Your task to perform on an android device: open chrome privacy settings Image 0: 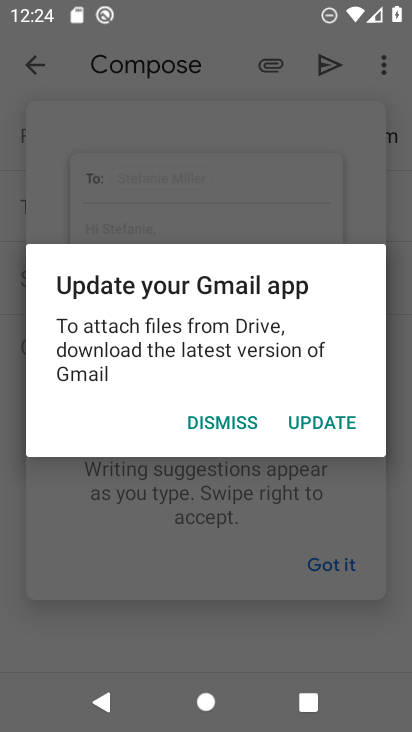
Step 0: press home button
Your task to perform on an android device: open chrome privacy settings Image 1: 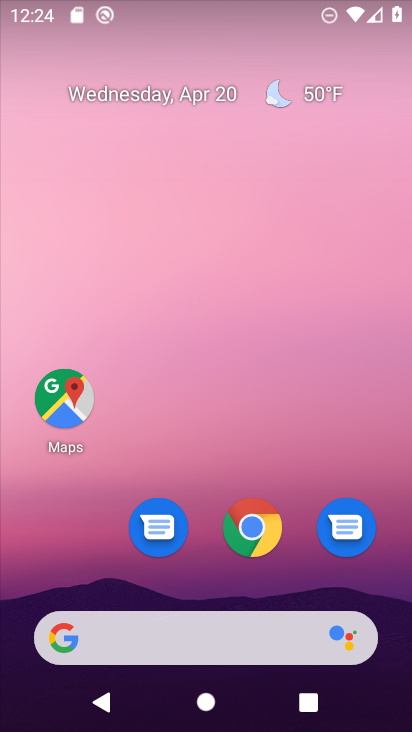
Step 1: click (253, 536)
Your task to perform on an android device: open chrome privacy settings Image 2: 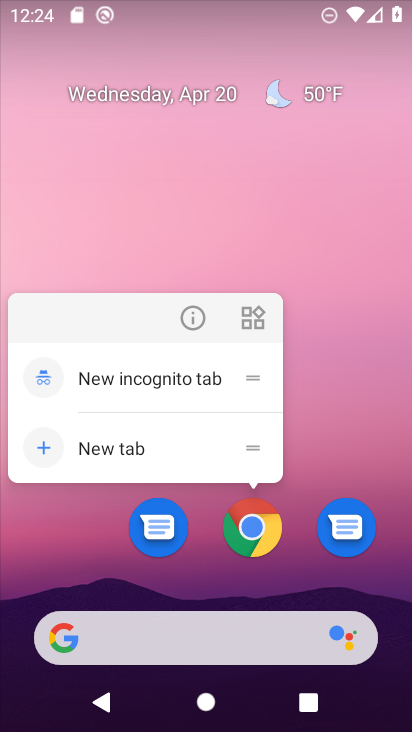
Step 2: click (254, 528)
Your task to perform on an android device: open chrome privacy settings Image 3: 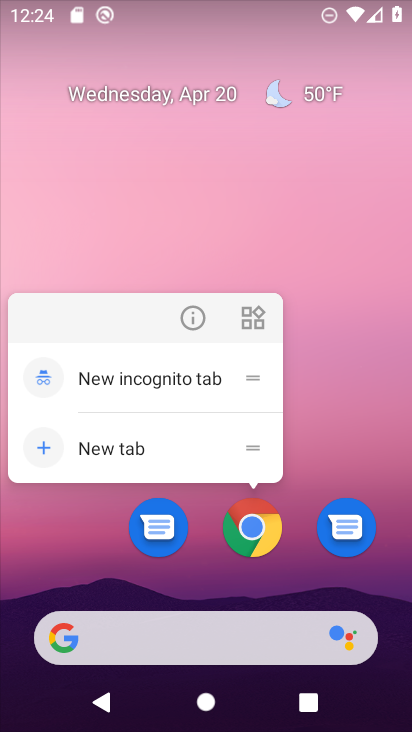
Step 3: click (254, 527)
Your task to perform on an android device: open chrome privacy settings Image 4: 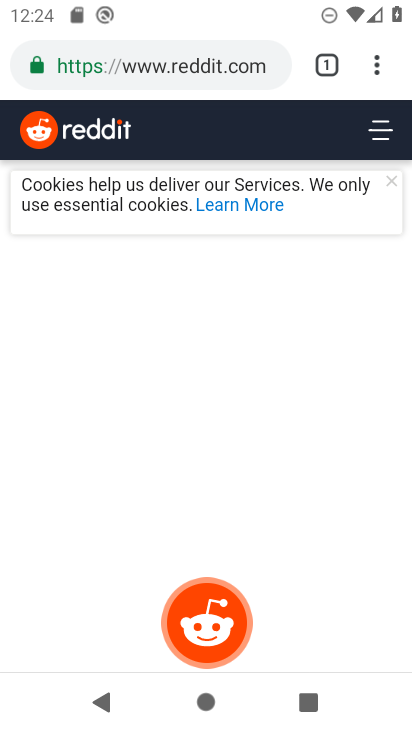
Step 4: click (378, 70)
Your task to perform on an android device: open chrome privacy settings Image 5: 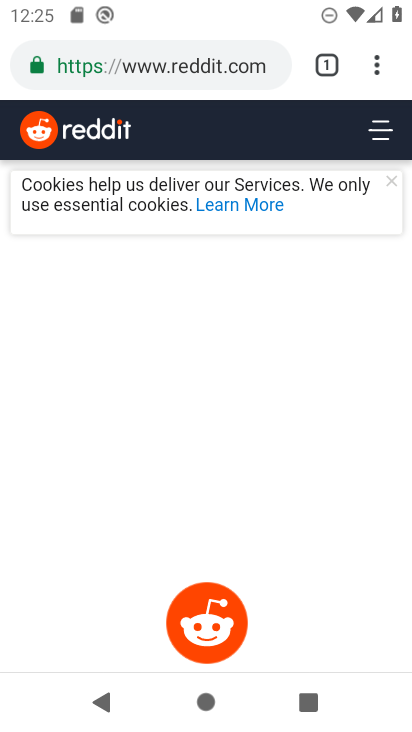
Step 5: click (379, 65)
Your task to perform on an android device: open chrome privacy settings Image 6: 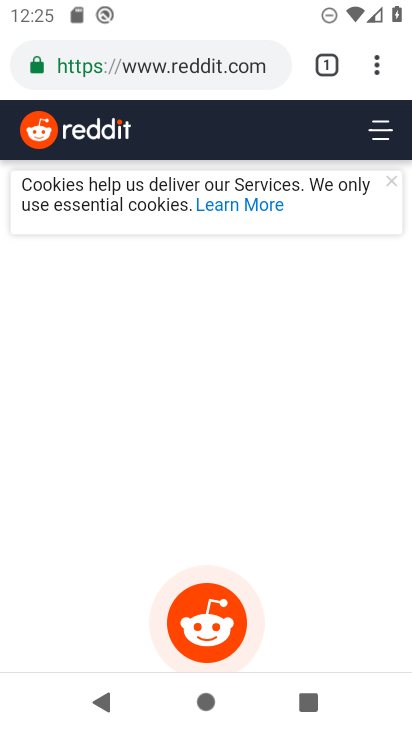
Step 6: click (377, 66)
Your task to perform on an android device: open chrome privacy settings Image 7: 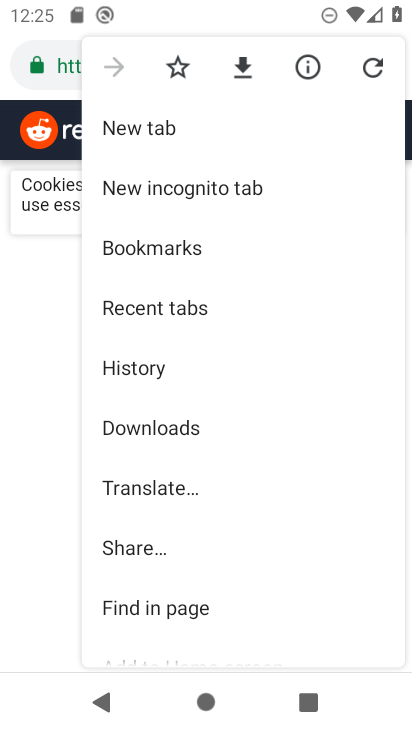
Step 7: drag from (234, 566) to (230, 210)
Your task to perform on an android device: open chrome privacy settings Image 8: 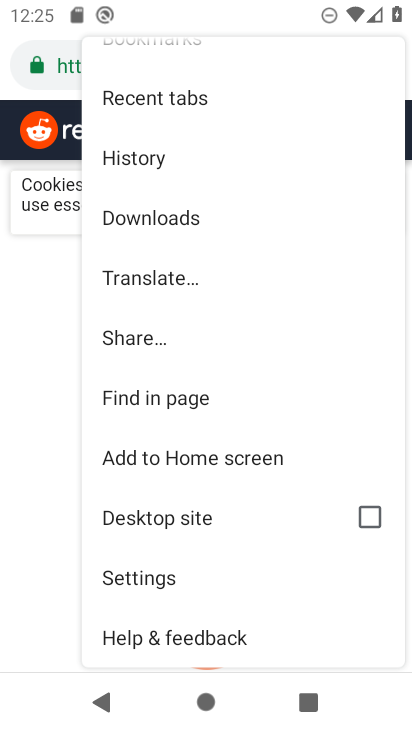
Step 8: click (153, 576)
Your task to perform on an android device: open chrome privacy settings Image 9: 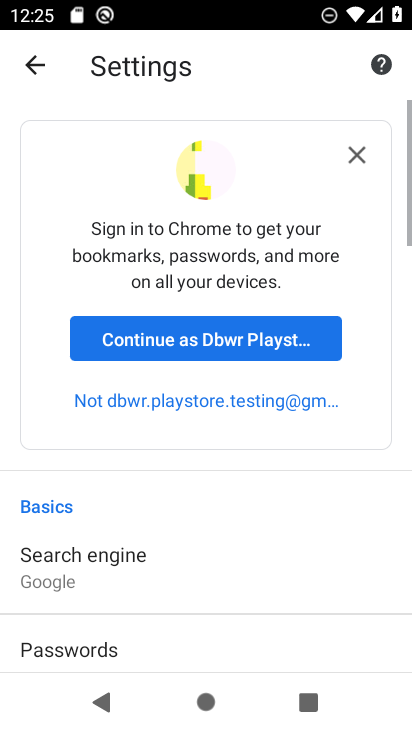
Step 9: drag from (252, 582) to (245, 128)
Your task to perform on an android device: open chrome privacy settings Image 10: 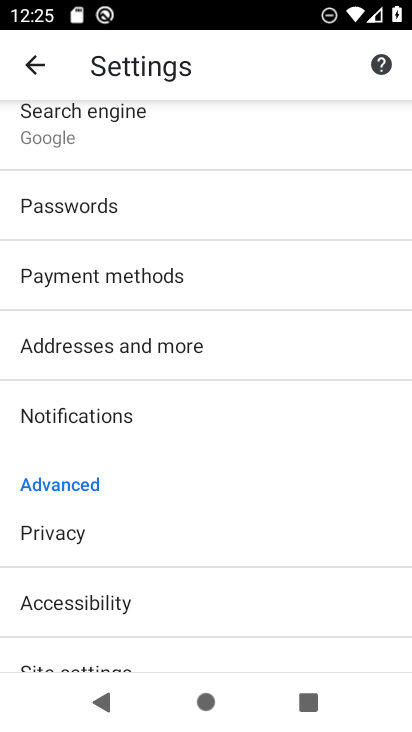
Step 10: click (56, 533)
Your task to perform on an android device: open chrome privacy settings Image 11: 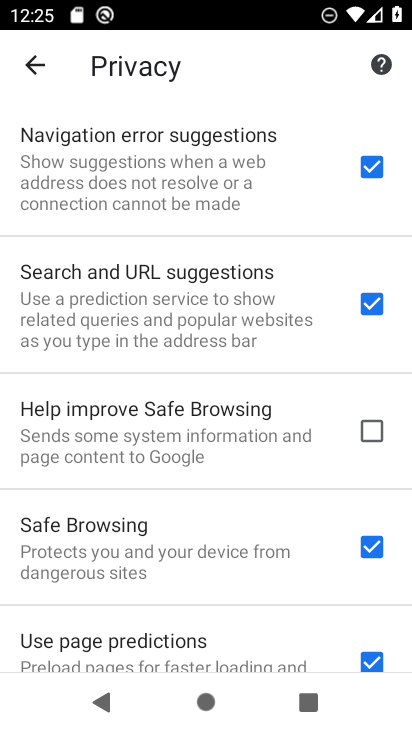
Step 11: task complete